Your task to perform on an android device: Go to privacy settings Image 0: 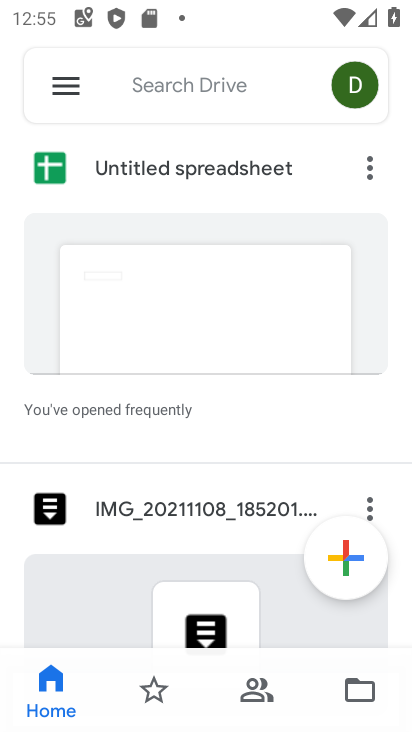
Step 0: press home button
Your task to perform on an android device: Go to privacy settings Image 1: 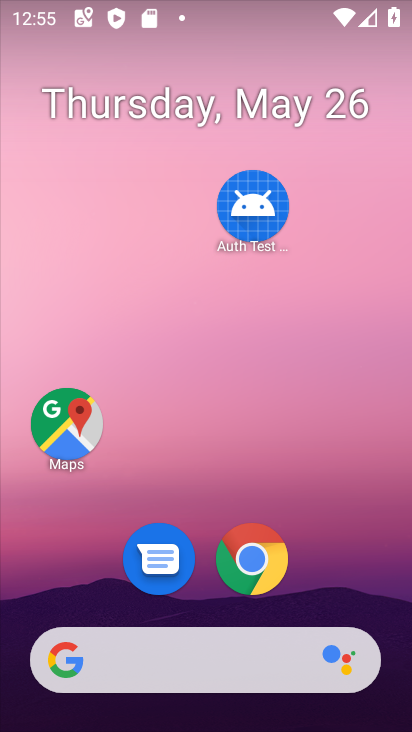
Step 1: drag from (333, 624) to (305, 116)
Your task to perform on an android device: Go to privacy settings Image 2: 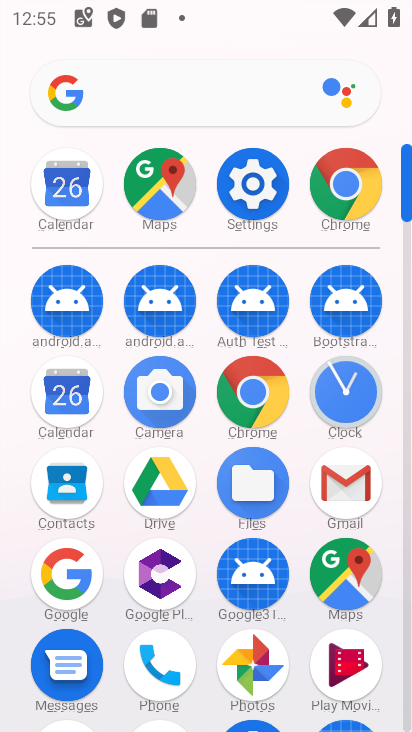
Step 2: drag from (193, 629) to (209, 589)
Your task to perform on an android device: Go to privacy settings Image 3: 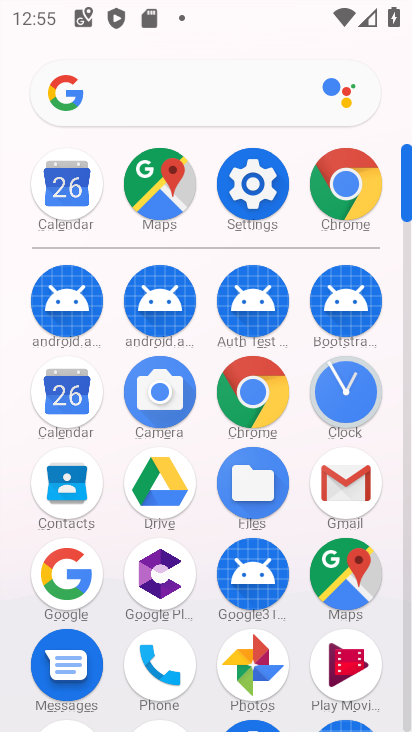
Step 3: click (271, 187)
Your task to perform on an android device: Go to privacy settings Image 4: 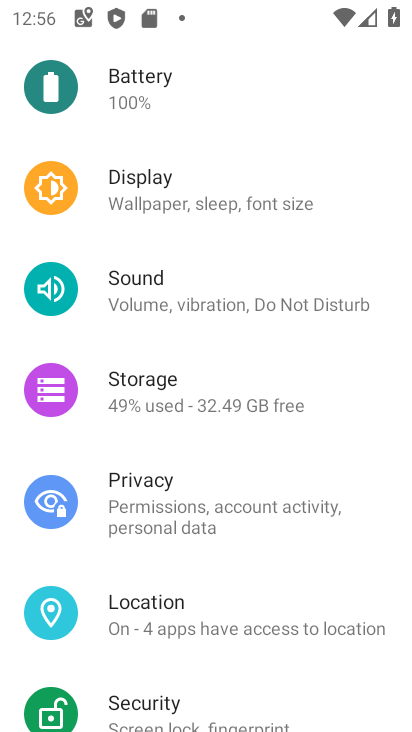
Step 4: click (181, 518)
Your task to perform on an android device: Go to privacy settings Image 5: 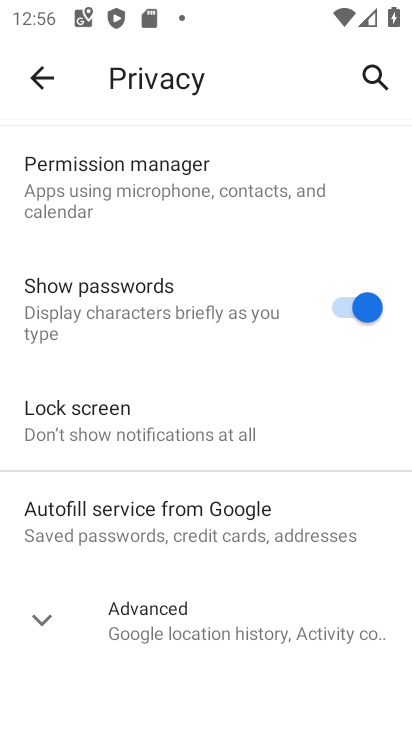
Step 5: task complete